Your task to perform on an android device: change alarm snooze length Image 0: 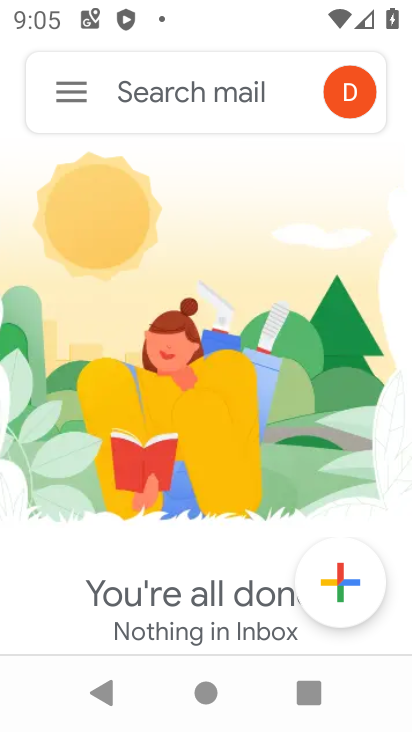
Step 0: press home button
Your task to perform on an android device: change alarm snooze length Image 1: 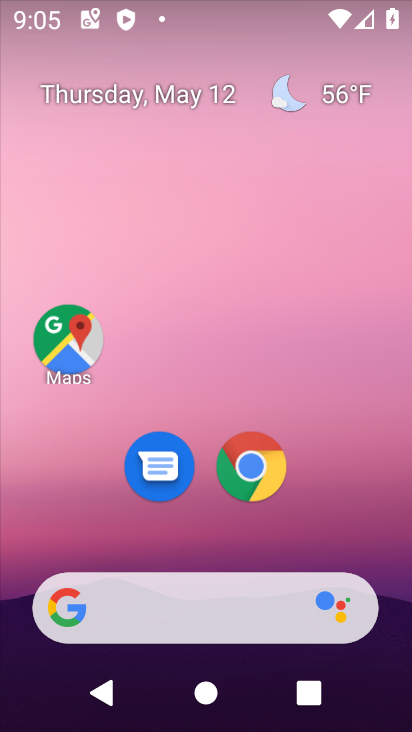
Step 1: drag from (274, 513) to (305, 131)
Your task to perform on an android device: change alarm snooze length Image 2: 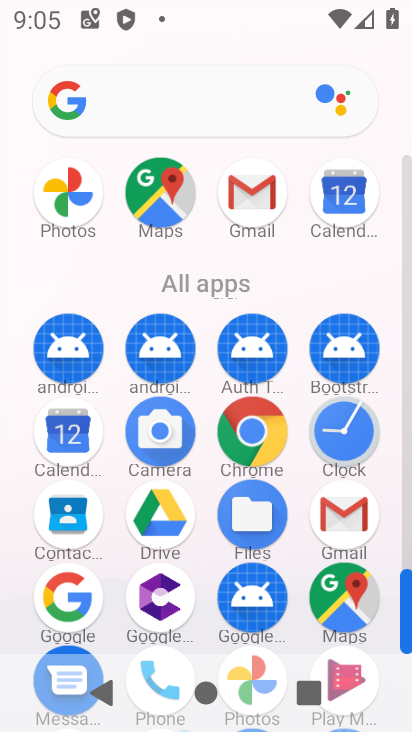
Step 2: click (330, 440)
Your task to perform on an android device: change alarm snooze length Image 3: 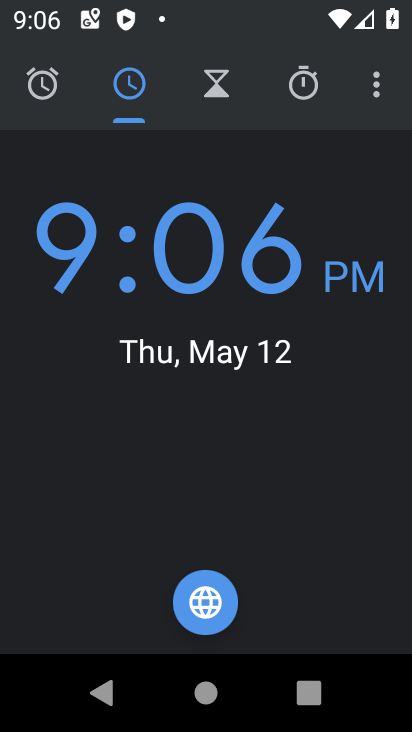
Step 3: click (376, 88)
Your task to perform on an android device: change alarm snooze length Image 4: 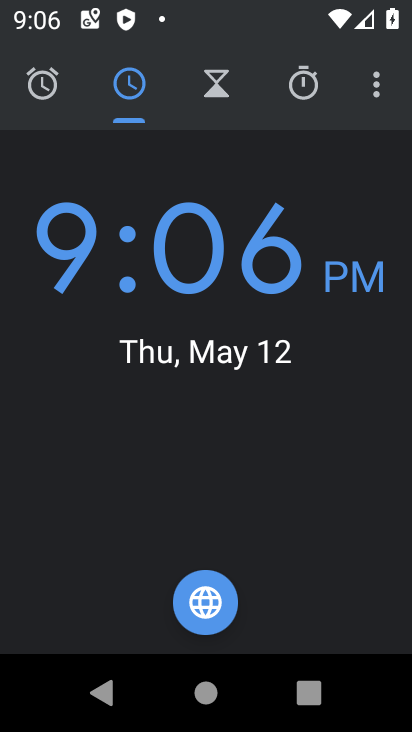
Step 4: click (378, 85)
Your task to perform on an android device: change alarm snooze length Image 5: 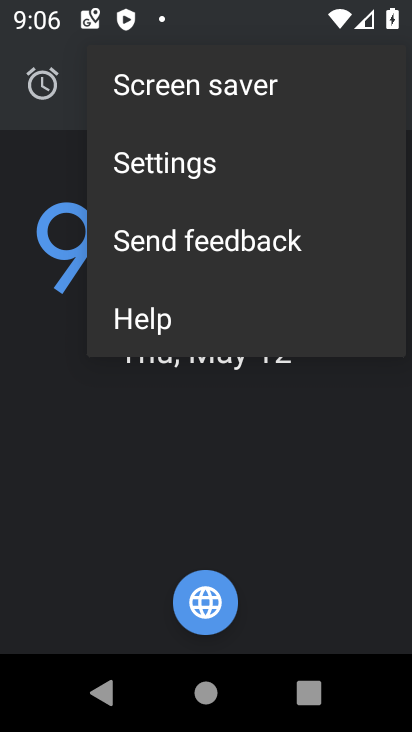
Step 5: click (192, 164)
Your task to perform on an android device: change alarm snooze length Image 6: 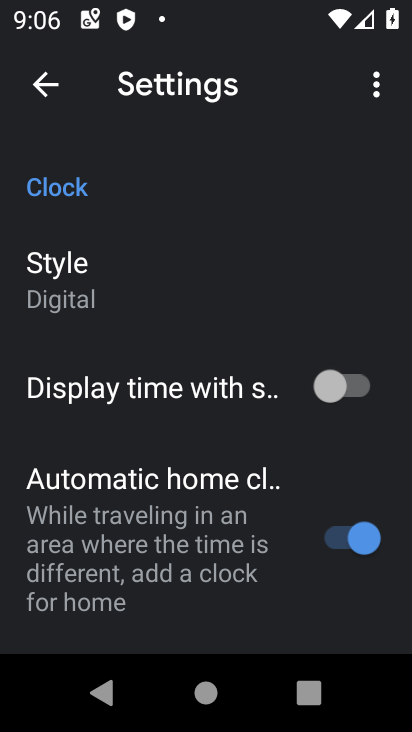
Step 6: drag from (204, 581) to (201, 388)
Your task to perform on an android device: change alarm snooze length Image 7: 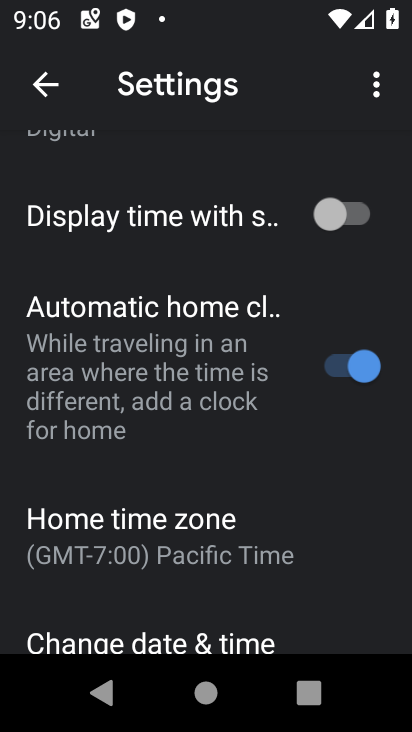
Step 7: drag from (146, 599) to (167, 219)
Your task to perform on an android device: change alarm snooze length Image 8: 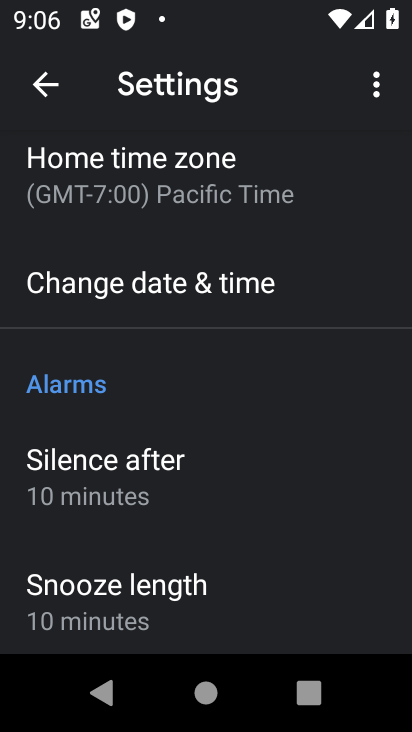
Step 8: click (225, 608)
Your task to perform on an android device: change alarm snooze length Image 9: 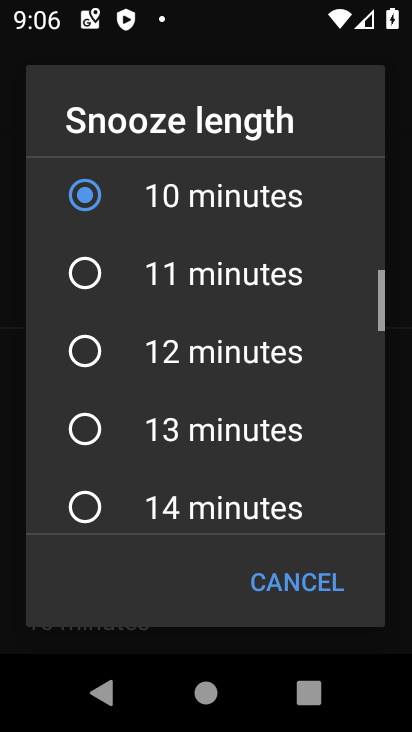
Step 9: click (246, 259)
Your task to perform on an android device: change alarm snooze length Image 10: 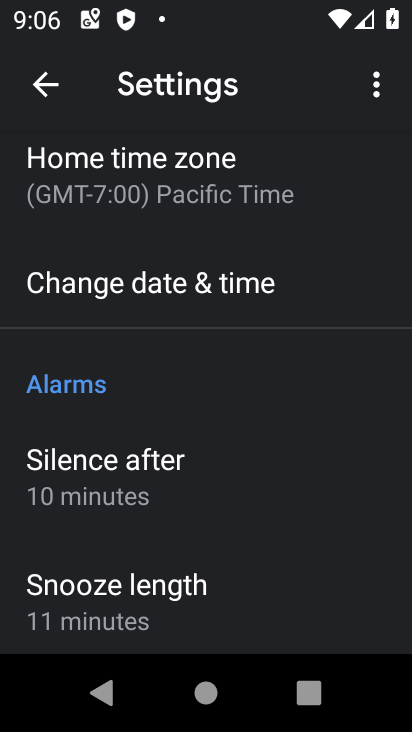
Step 10: task complete